Your task to perform on an android device: change keyboard looks Image 0: 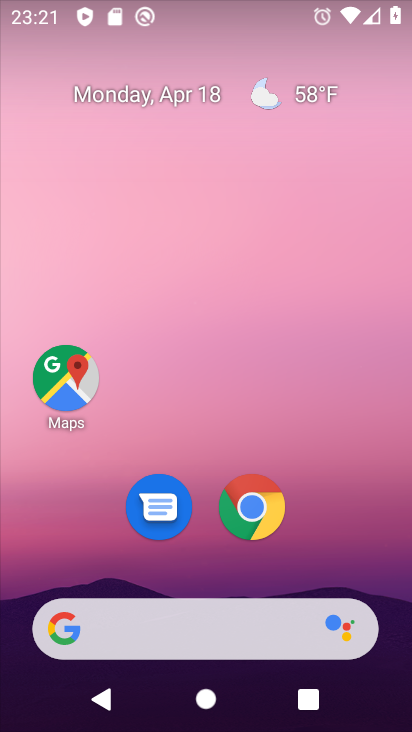
Step 0: drag from (228, 21) to (254, 634)
Your task to perform on an android device: change keyboard looks Image 1: 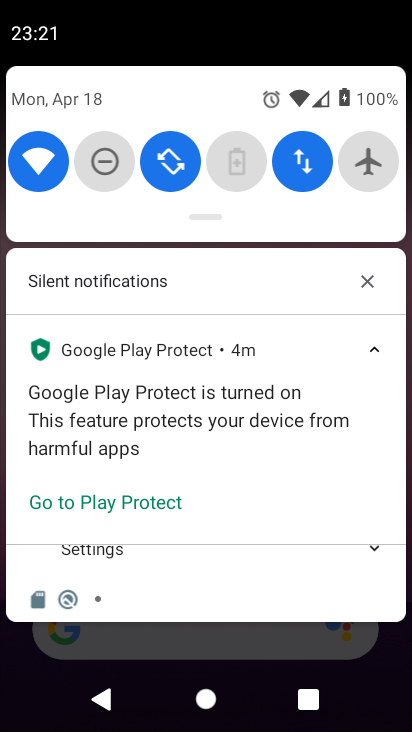
Step 1: drag from (197, 92) to (150, 682)
Your task to perform on an android device: change keyboard looks Image 2: 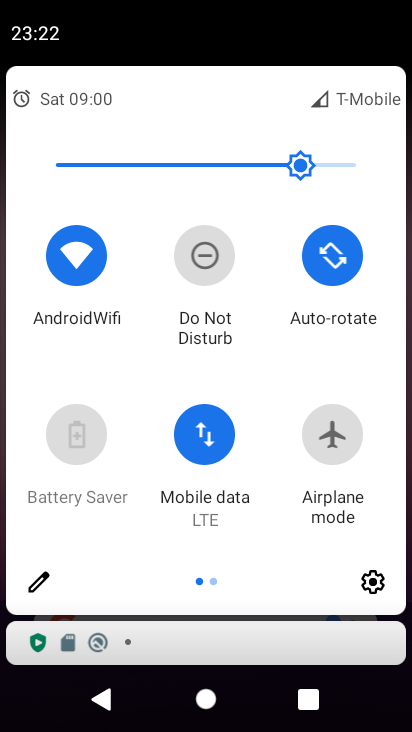
Step 2: click (375, 585)
Your task to perform on an android device: change keyboard looks Image 3: 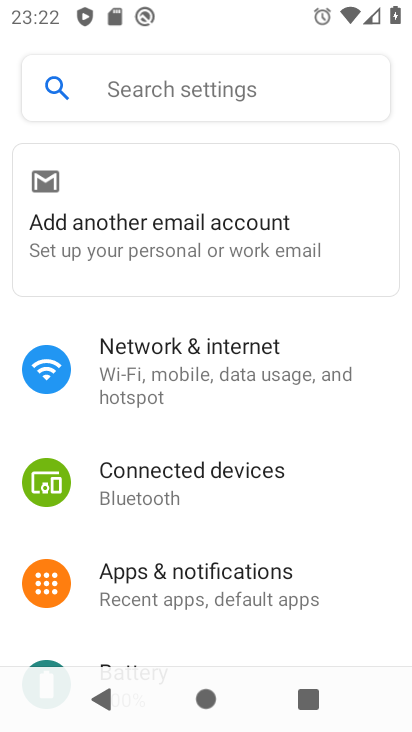
Step 3: click (157, 83)
Your task to perform on an android device: change keyboard looks Image 4: 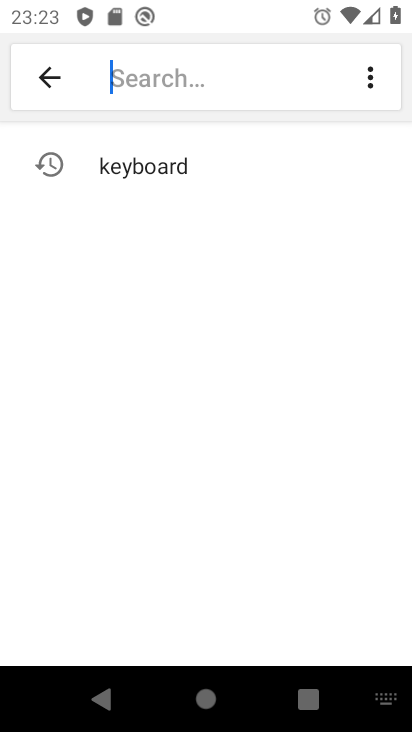
Step 4: type "key"
Your task to perform on an android device: change keyboard looks Image 5: 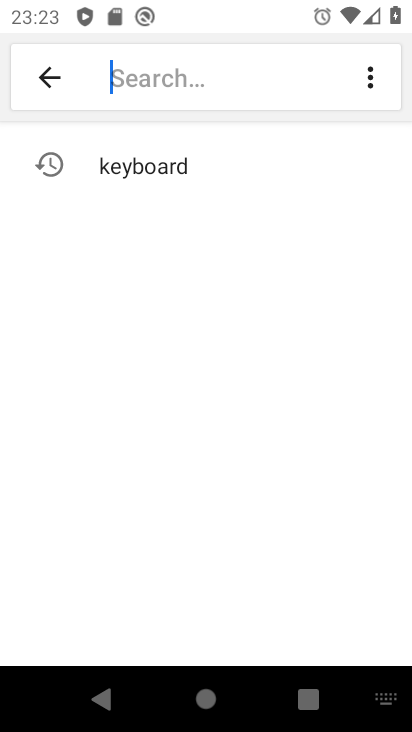
Step 5: click (189, 174)
Your task to perform on an android device: change keyboard looks Image 6: 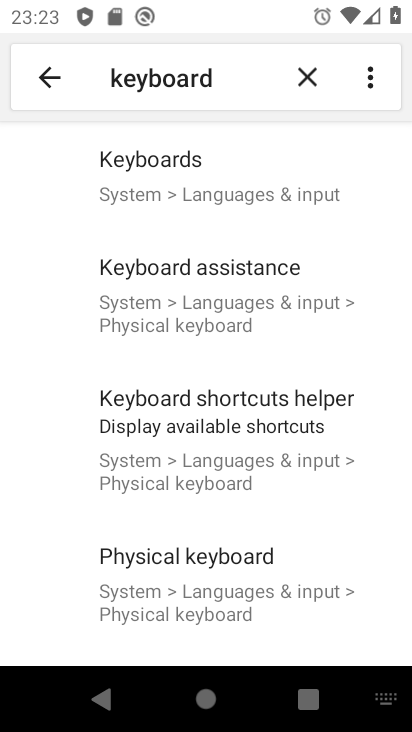
Step 6: click (189, 172)
Your task to perform on an android device: change keyboard looks Image 7: 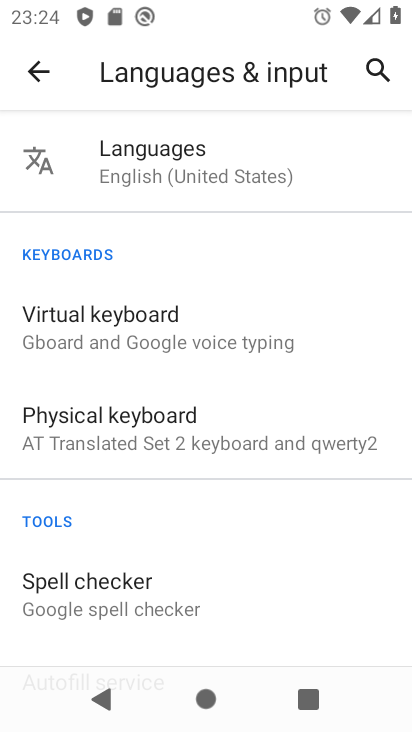
Step 7: click (160, 346)
Your task to perform on an android device: change keyboard looks Image 8: 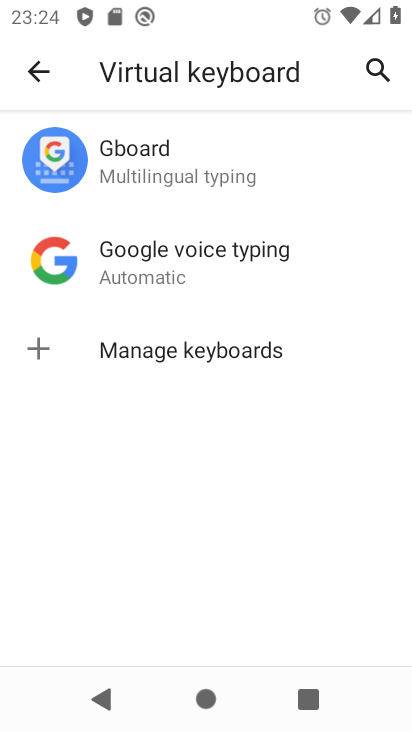
Step 8: click (149, 194)
Your task to perform on an android device: change keyboard looks Image 9: 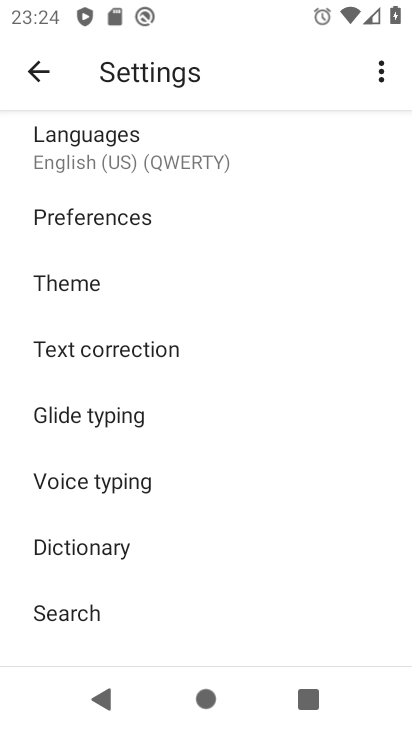
Step 9: click (90, 285)
Your task to perform on an android device: change keyboard looks Image 10: 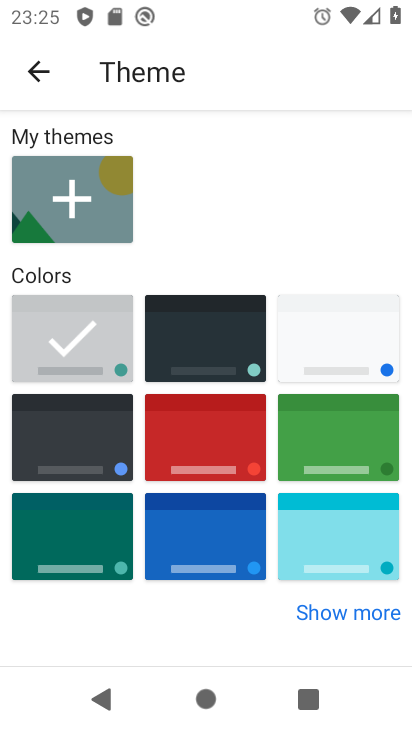
Step 10: click (362, 452)
Your task to perform on an android device: change keyboard looks Image 11: 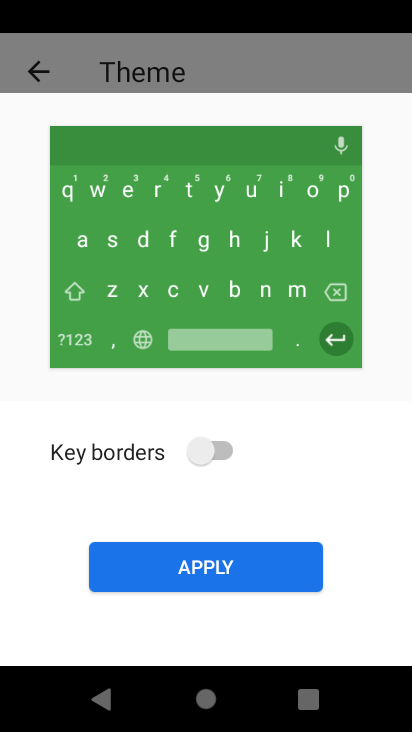
Step 11: click (198, 563)
Your task to perform on an android device: change keyboard looks Image 12: 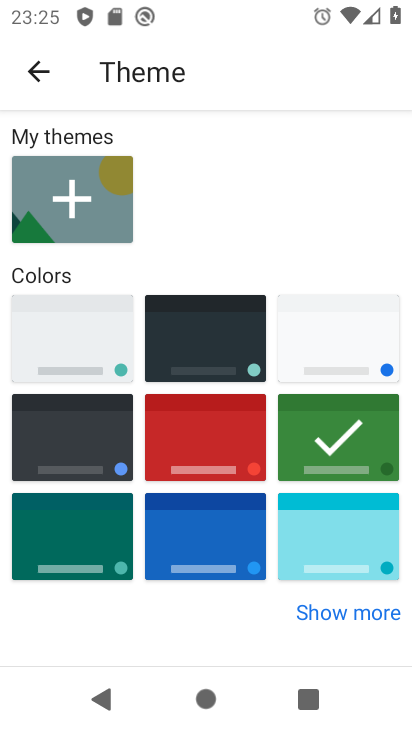
Step 12: task complete